Your task to perform on an android device: uninstall "Pandora - Music & Podcasts" Image 0: 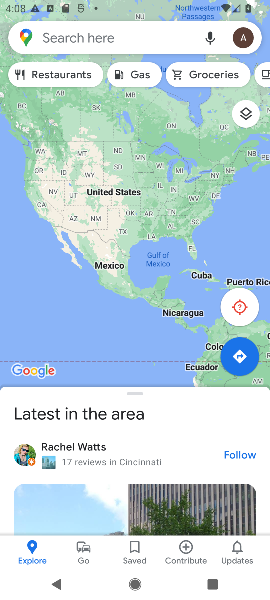
Step 0: press home button
Your task to perform on an android device: uninstall "Pandora - Music & Podcasts" Image 1: 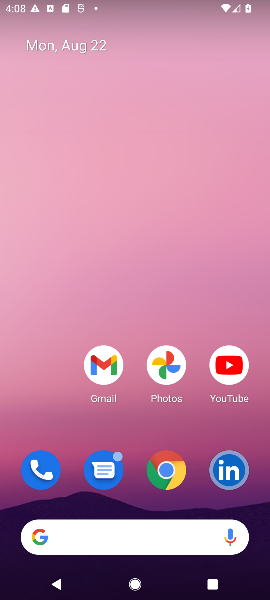
Step 1: drag from (103, 496) to (185, 71)
Your task to perform on an android device: uninstall "Pandora - Music & Podcasts" Image 2: 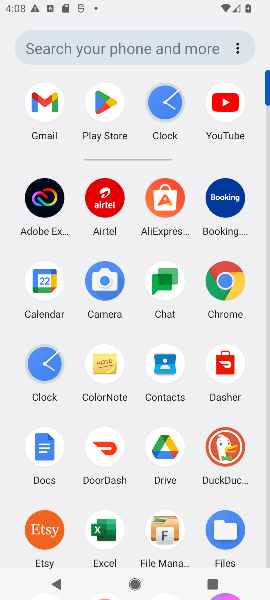
Step 2: click (110, 94)
Your task to perform on an android device: uninstall "Pandora - Music & Podcasts" Image 3: 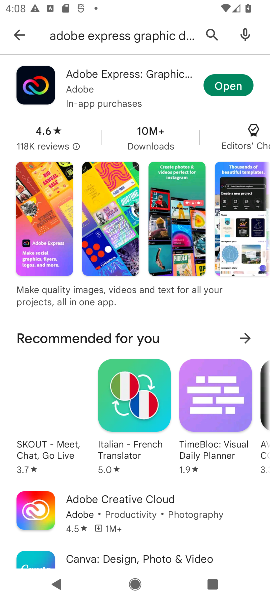
Step 3: click (20, 37)
Your task to perform on an android device: uninstall "Pandora - Music & Podcasts" Image 4: 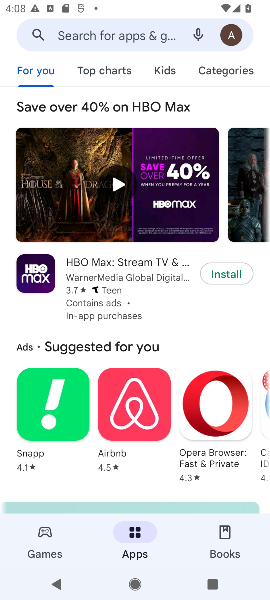
Step 4: click (99, 24)
Your task to perform on an android device: uninstall "Pandora - Music & Podcasts" Image 5: 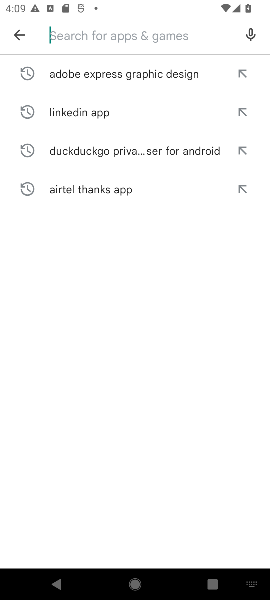
Step 5: type "pandora "
Your task to perform on an android device: uninstall "Pandora - Music & Podcasts" Image 6: 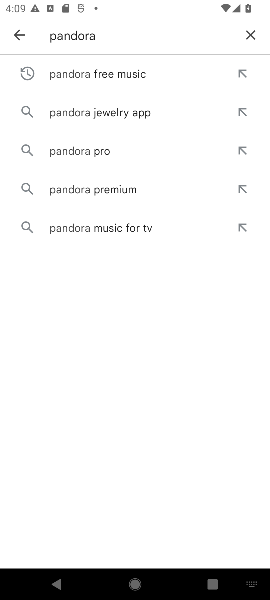
Step 6: click (85, 145)
Your task to perform on an android device: uninstall "Pandora - Music & Podcasts" Image 7: 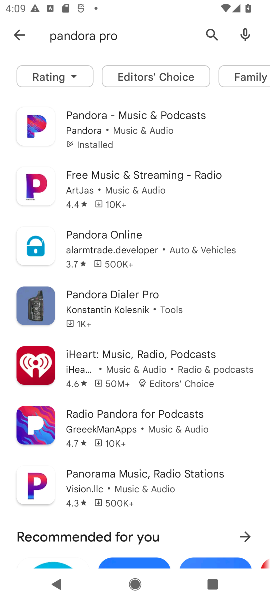
Step 7: click (60, 103)
Your task to perform on an android device: uninstall "Pandora - Music & Podcasts" Image 8: 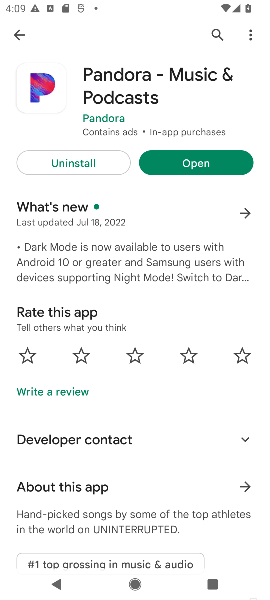
Step 8: click (62, 155)
Your task to perform on an android device: uninstall "Pandora - Music & Podcasts" Image 9: 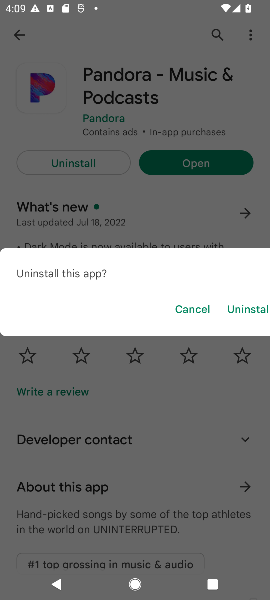
Step 9: click (250, 303)
Your task to perform on an android device: uninstall "Pandora - Music & Podcasts" Image 10: 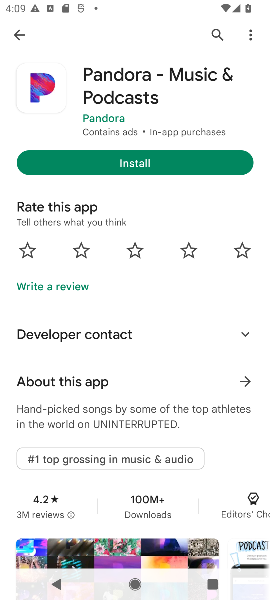
Step 10: task complete